Your task to perform on an android device: Do I have any events today? Image 0: 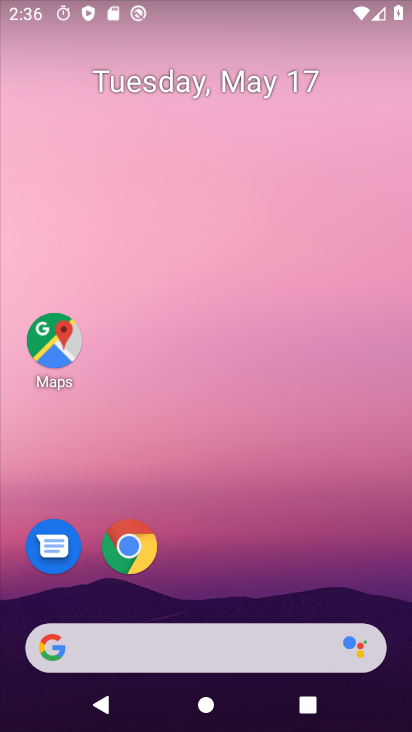
Step 0: drag from (248, 549) to (252, 201)
Your task to perform on an android device: Do I have any events today? Image 1: 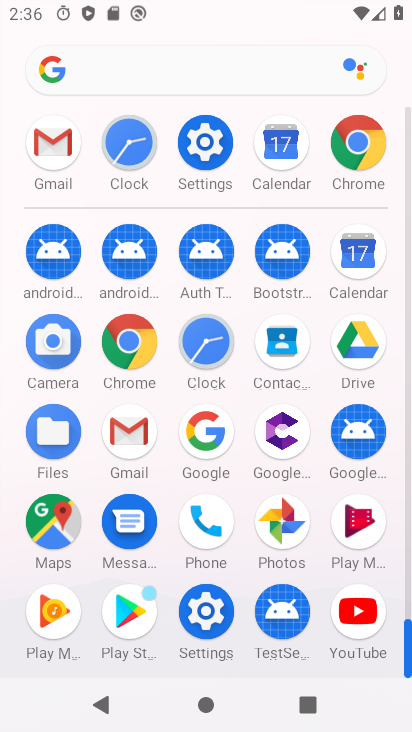
Step 1: click (362, 282)
Your task to perform on an android device: Do I have any events today? Image 2: 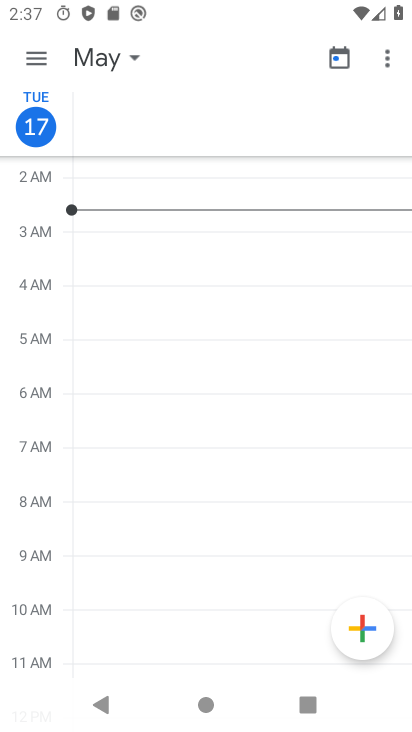
Step 2: click (119, 64)
Your task to perform on an android device: Do I have any events today? Image 3: 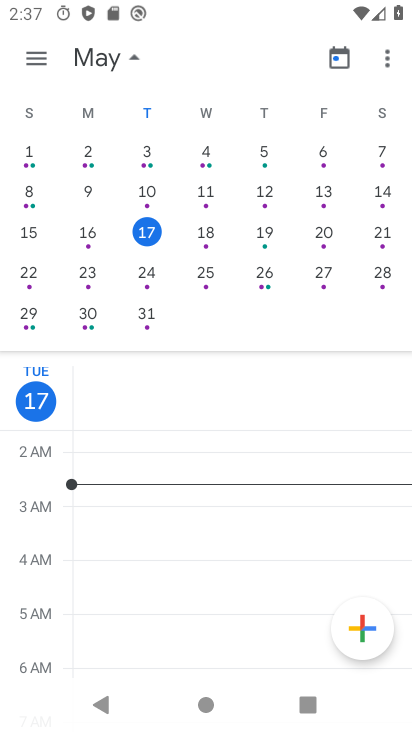
Step 3: click (144, 235)
Your task to perform on an android device: Do I have any events today? Image 4: 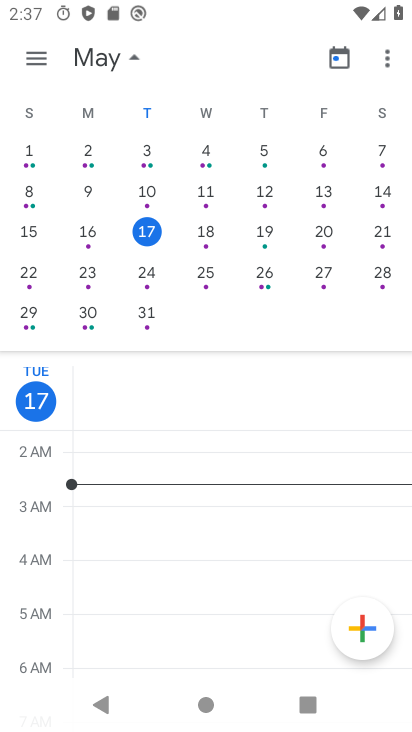
Step 4: task complete